Your task to perform on an android device: turn on improve location accuracy Image 0: 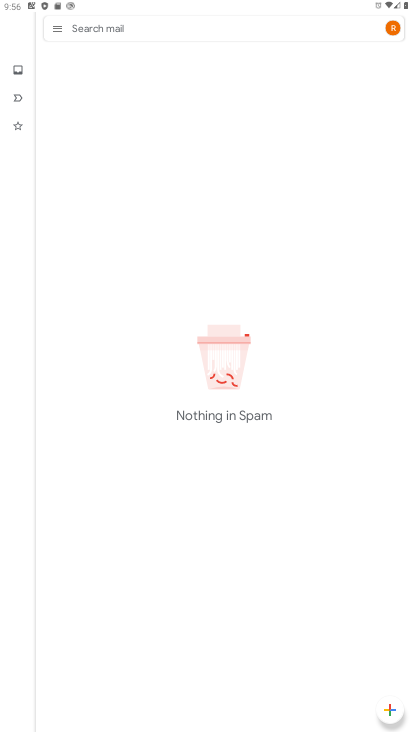
Step 0: press home button
Your task to perform on an android device: turn on improve location accuracy Image 1: 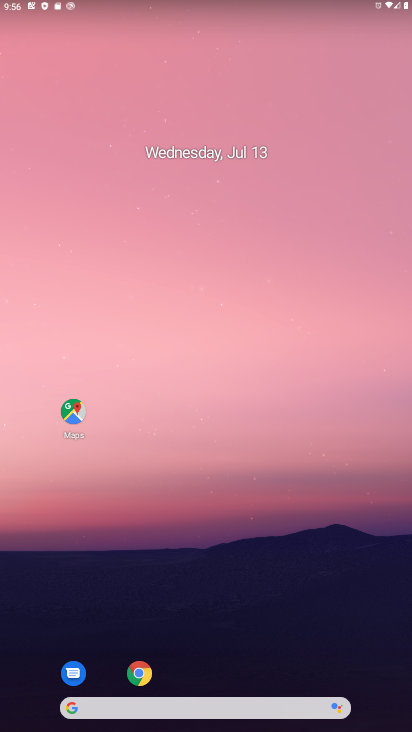
Step 1: drag from (182, 657) to (211, 111)
Your task to perform on an android device: turn on improve location accuracy Image 2: 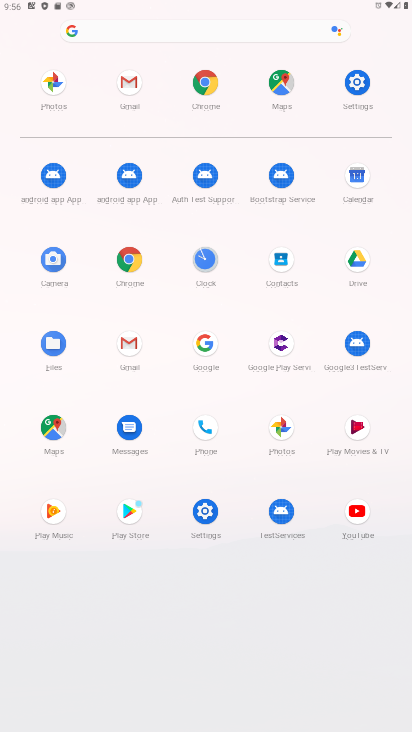
Step 2: click (360, 73)
Your task to perform on an android device: turn on improve location accuracy Image 3: 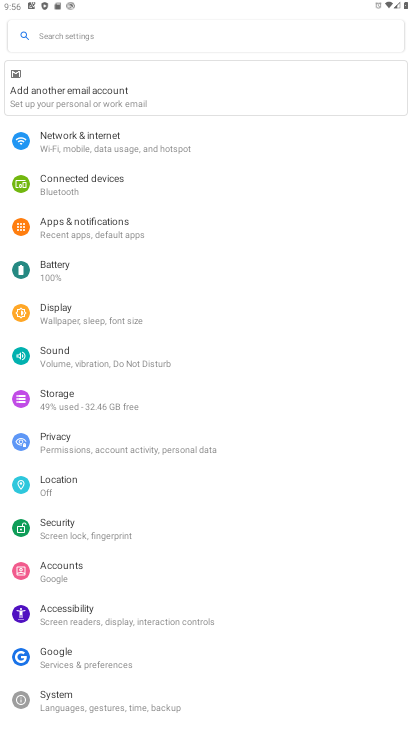
Step 3: click (62, 494)
Your task to perform on an android device: turn on improve location accuracy Image 4: 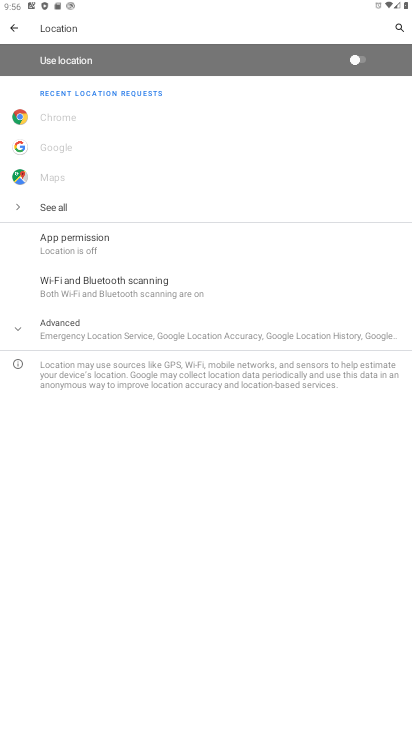
Step 4: click (108, 325)
Your task to perform on an android device: turn on improve location accuracy Image 5: 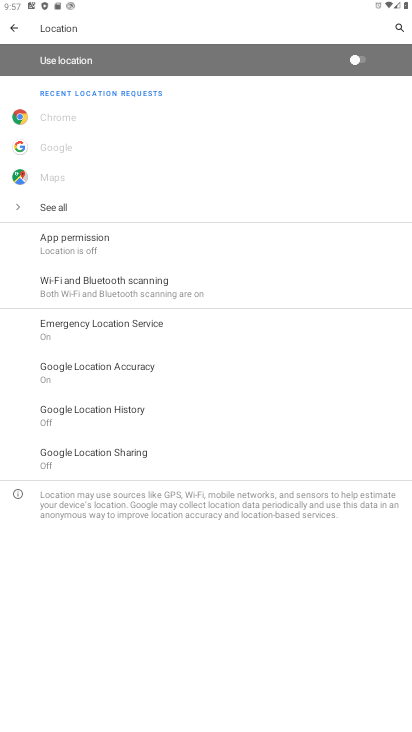
Step 5: click (143, 377)
Your task to perform on an android device: turn on improve location accuracy Image 6: 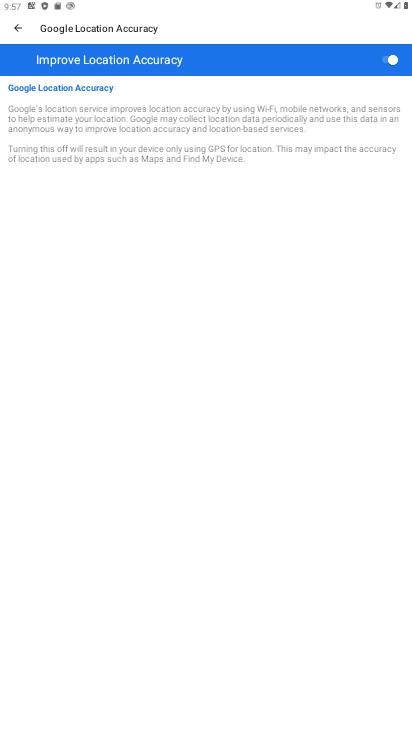
Step 6: task complete